Your task to perform on an android device: change the clock display to show seconds Image 0: 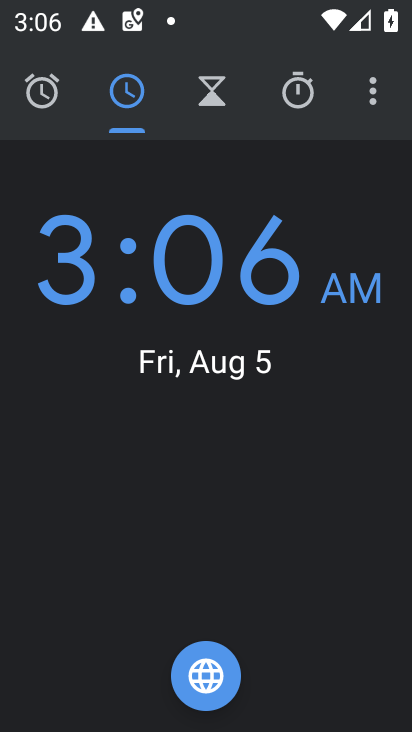
Step 0: press home button
Your task to perform on an android device: change the clock display to show seconds Image 1: 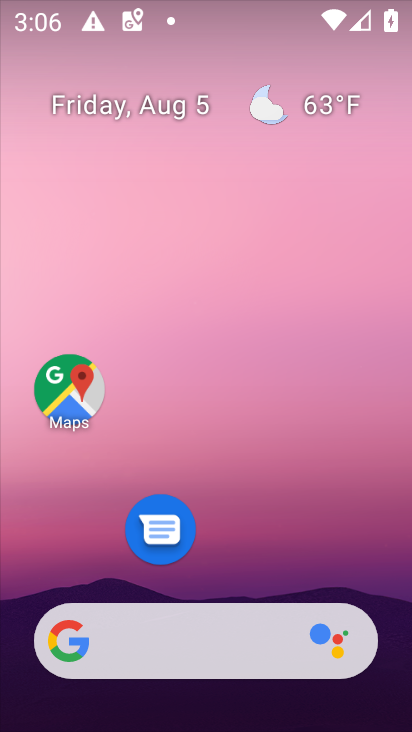
Step 1: drag from (182, 678) to (251, 253)
Your task to perform on an android device: change the clock display to show seconds Image 2: 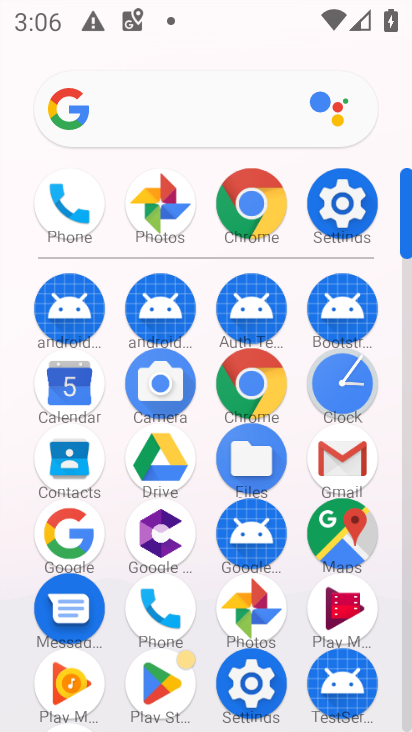
Step 2: click (363, 350)
Your task to perform on an android device: change the clock display to show seconds Image 3: 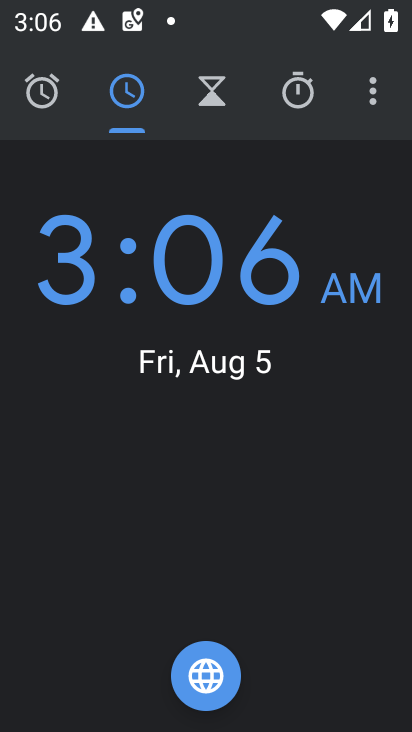
Step 3: click (368, 77)
Your task to perform on an android device: change the clock display to show seconds Image 4: 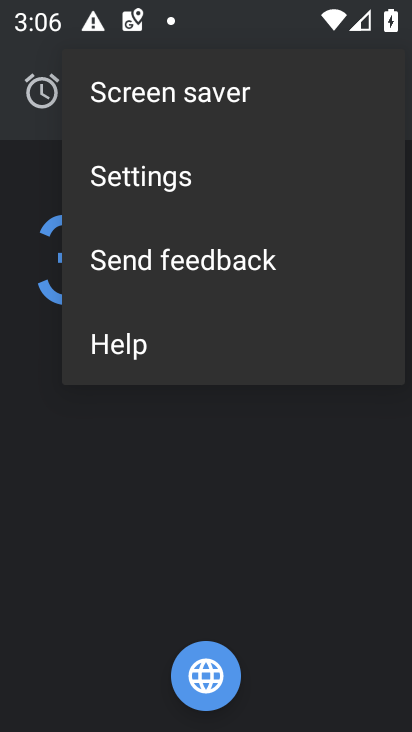
Step 4: click (186, 164)
Your task to perform on an android device: change the clock display to show seconds Image 5: 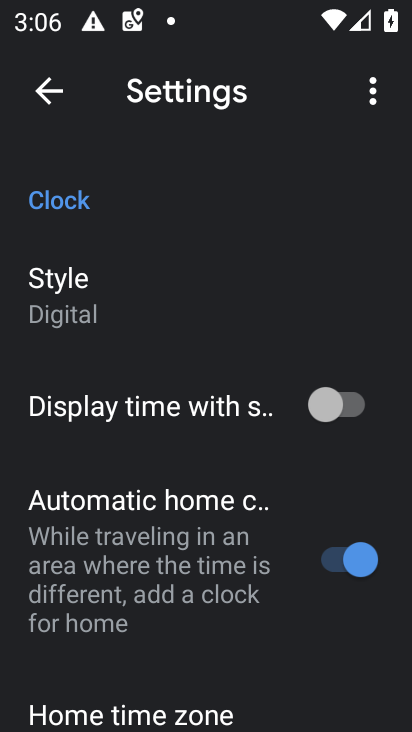
Step 5: click (334, 423)
Your task to perform on an android device: change the clock display to show seconds Image 6: 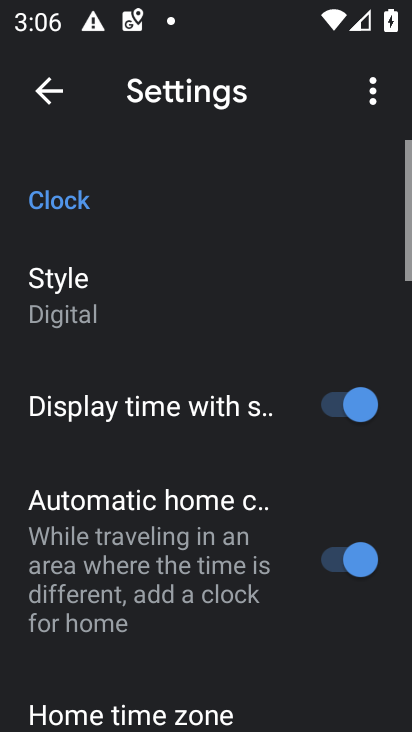
Step 6: task complete